Your task to perform on an android device: turn off sleep mode Image 0: 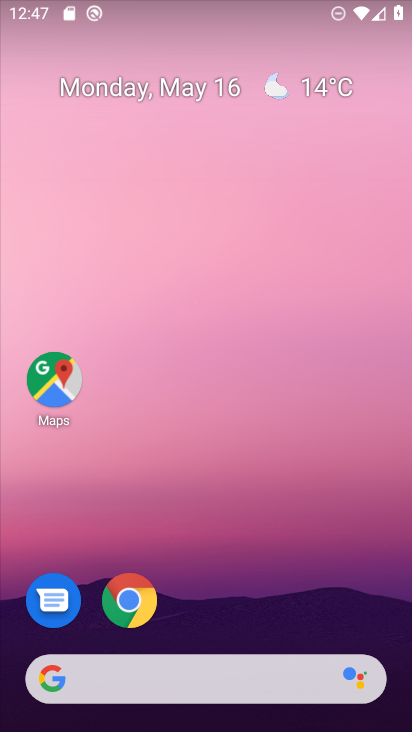
Step 0: press home button
Your task to perform on an android device: turn off sleep mode Image 1: 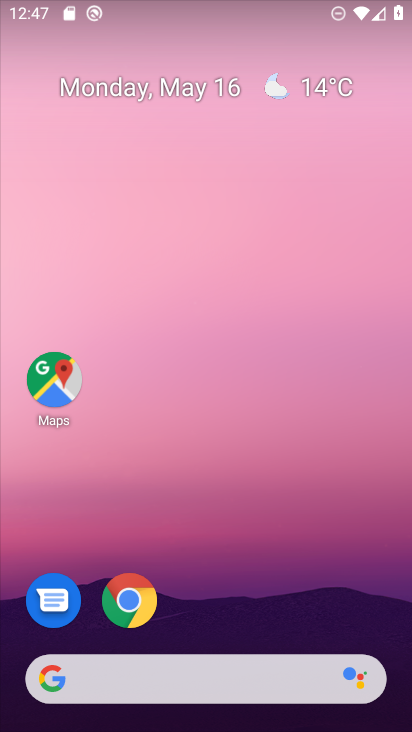
Step 1: drag from (214, 634) to (253, 80)
Your task to perform on an android device: turn off sleep mode Image 2: 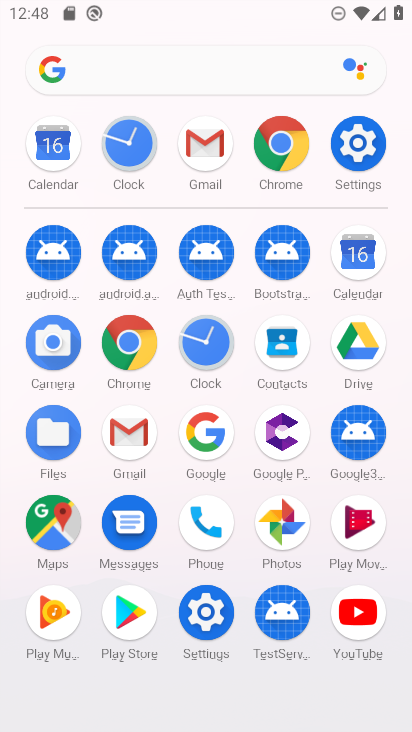
Step 2: click (356, 138)
Your task to perform on an android device: turn off sleep mode Image 3: 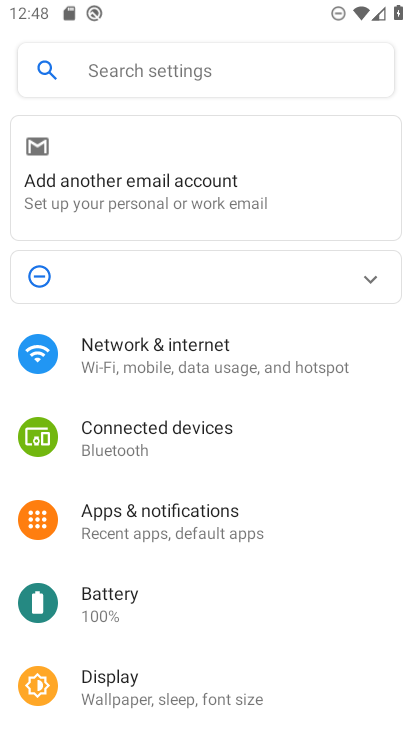
Step 3: click (175, 678)
Your task to perform on an android device: turn off sleep mode Image 4: 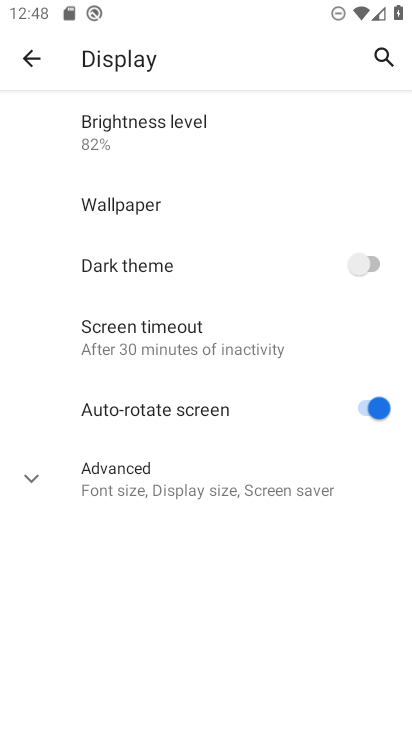
Step 4: click (33, 473)
Your task to perform on an android device: turn off sleep mode Image 5: 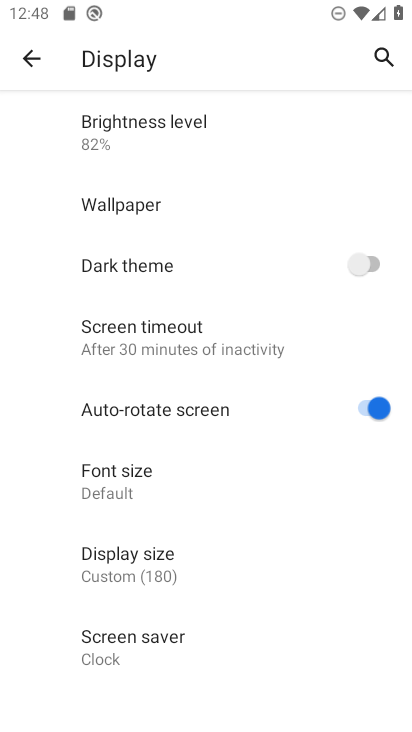
Step 5: task complete